Your task to perform on an android device: Go to network settings Image 0: 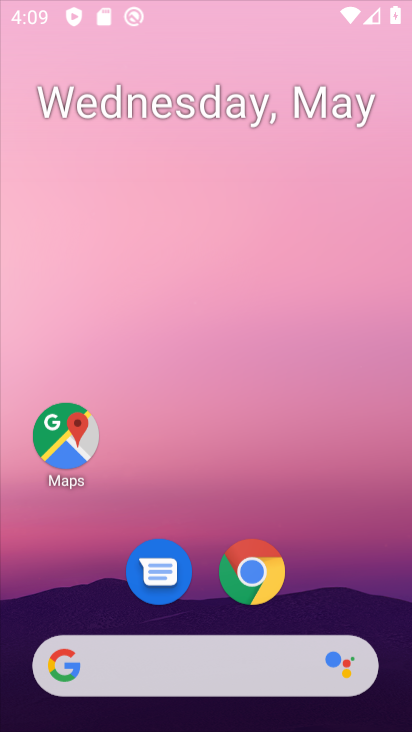
Step 0: press back button
Your task to perform on an android device: Go to network settings Image 1: 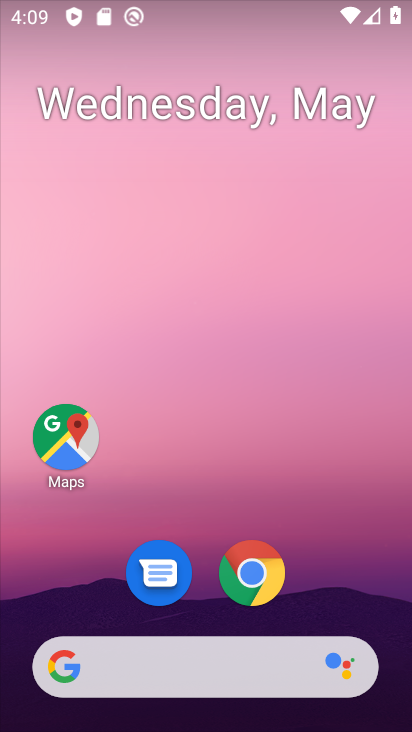
Step 1: drag from (376, 677) to (176, 76)
Your task to perform on an android device: Go to network settings Image 2: 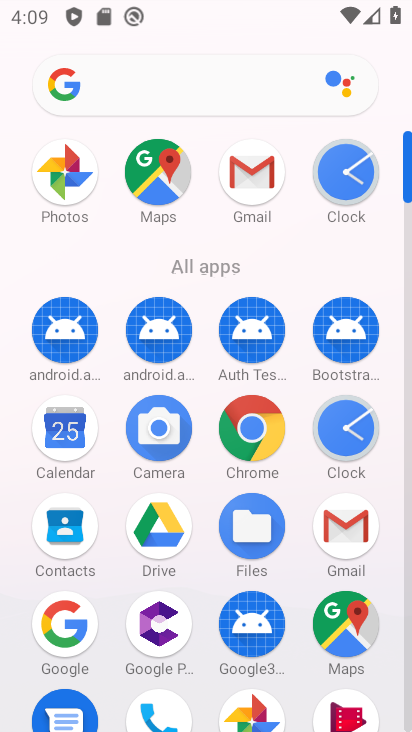
Step 2: drag from (302, 473) to (298, 177)
Your task to perform on an android device: Go to network settings Image 3: 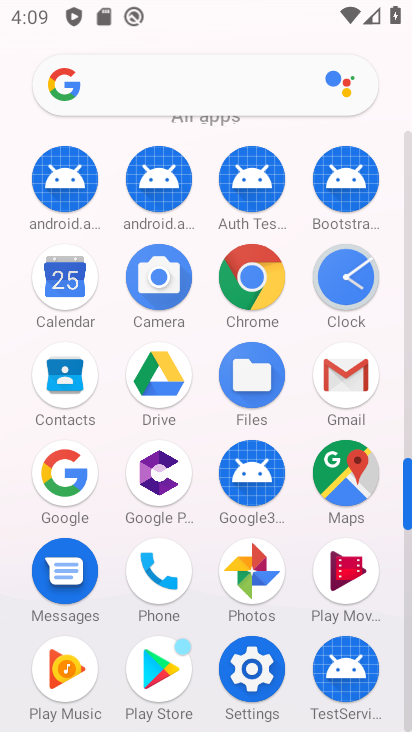
Step 3: drag from (295, 445) to (262, 192)
Your task to perform on an android device: Go to network settings Image 4: 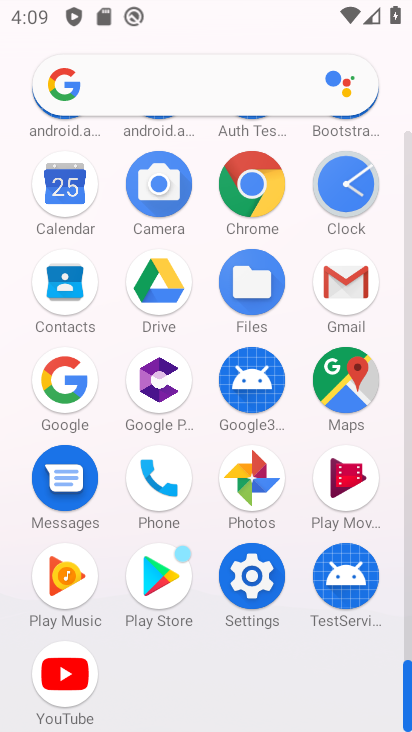
Step 4: click (254, 589)
Your task to perform on an android device: Go to network settings Image 5: 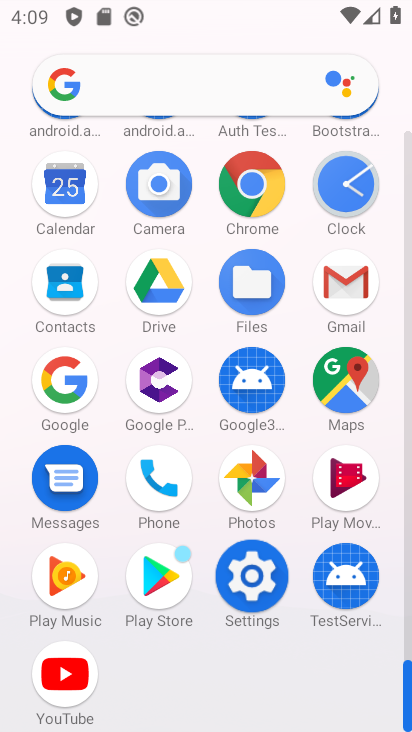
Step 5: click (254, 589)
Your task to perform on an android device: Go to network settings Image 6: 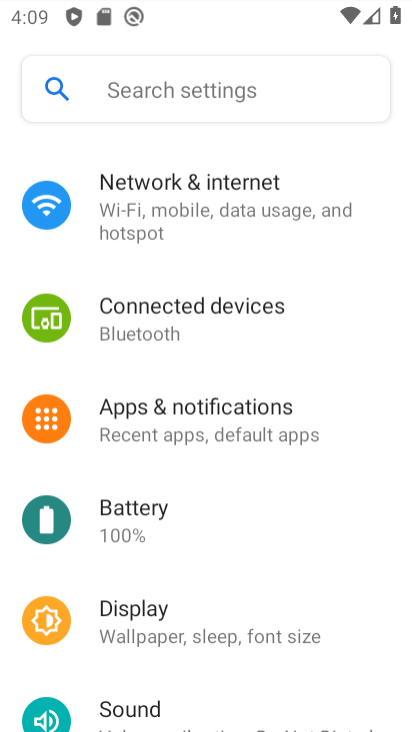
Step 6: click (261, 559)
Your task to perform on an android device: Go to network settings Image 7: 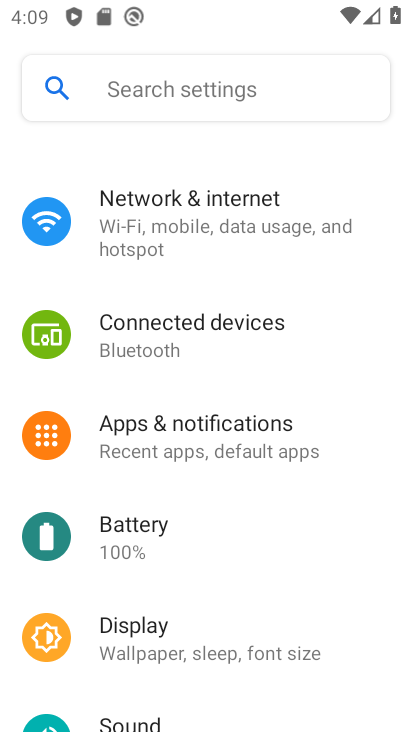
Step 7: click (261, 560)
Your task to perform on an android device: Go to network settings Image 8: 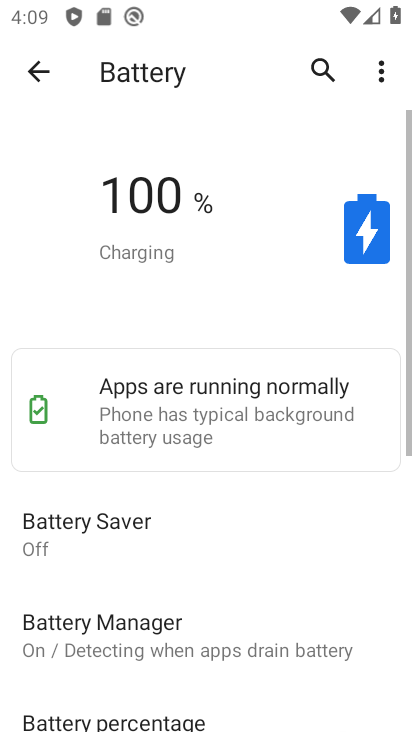
Step 8: click (43, 79)
Your task to perform on an android device: Go to network settings Image 9: 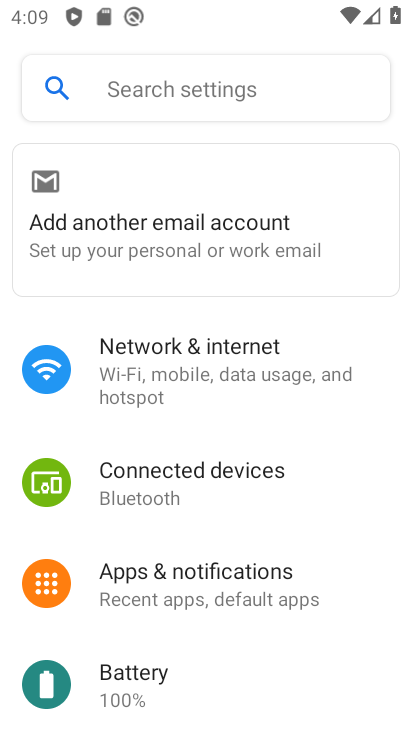
Step 9: click (176, 359)
Your task to perform on an android device: Go to network settings Image 10: 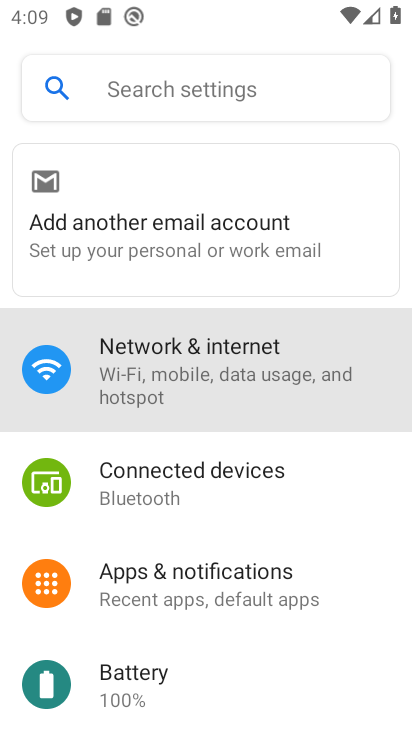
Step 10: click (175, 358)
Your task to perform on an android device: Go to network settings Image 11: 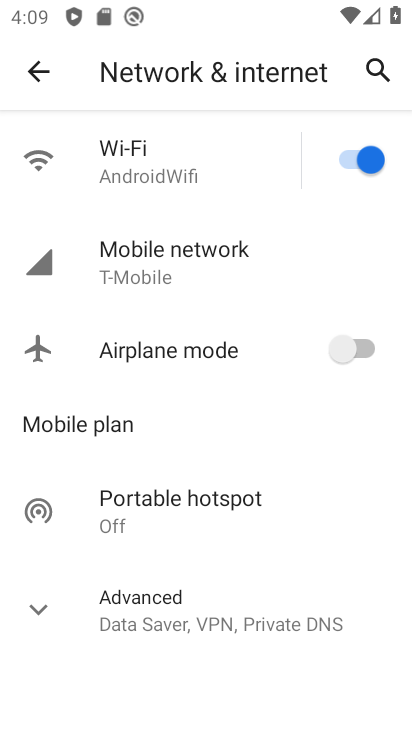
Step 11: task complete